Your task to perform on an android device: delete location history Image 0: 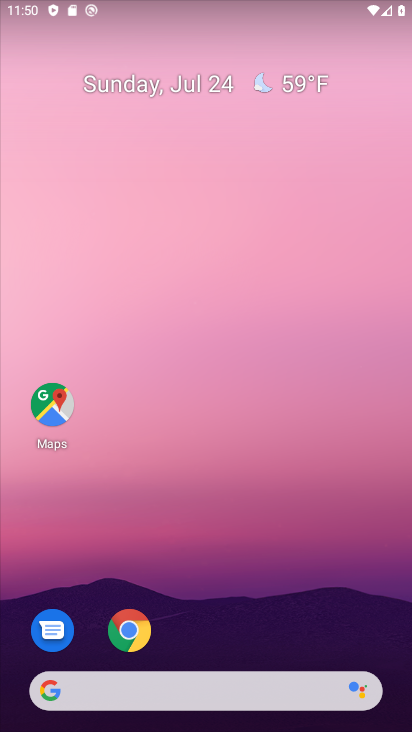
Step 0: drag from (253, 498) to (294, 236)
Your task to perform on an android device: delete location history Image 1: 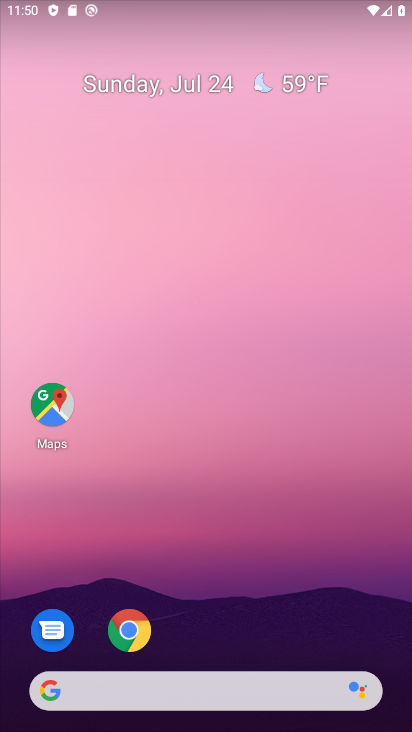
Step 1: drag from (218, 664) to (290, 161)
Your task to perform on an android device: delete location history Image 2: 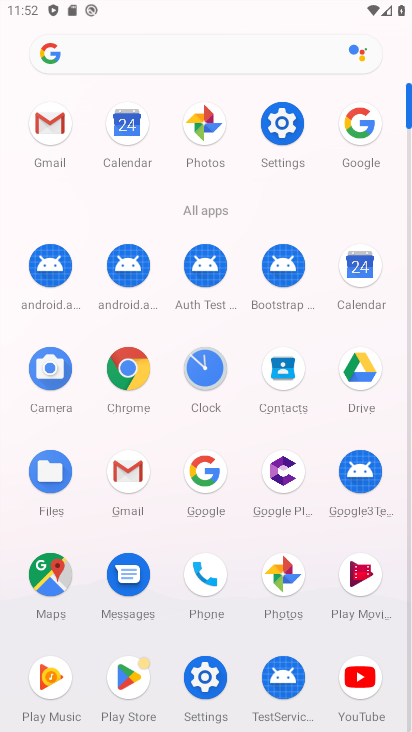
Step 2: click (207, 676)
Your task to perform on an android device: delete location history Image 3: 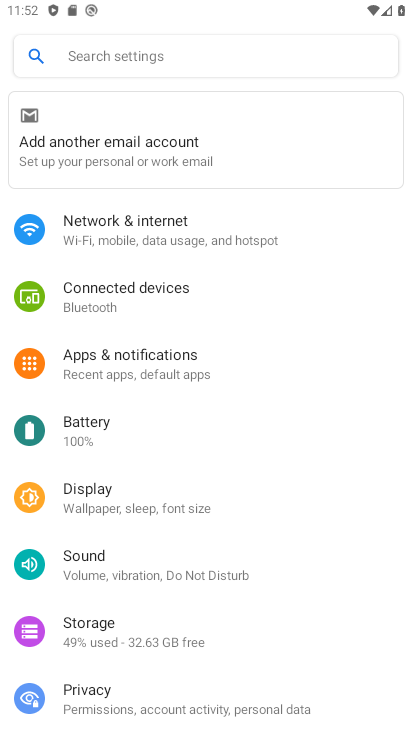
Step 3: drag from (96, 683) to (166, 349)
Your task to perform on an android device: delete location history Image 4: 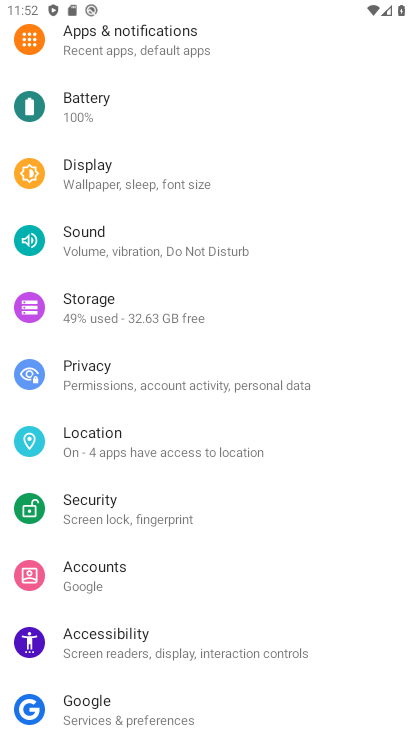
Step 4: click (102, 435)
Your task to perform on an android device: delete location history Image 5: 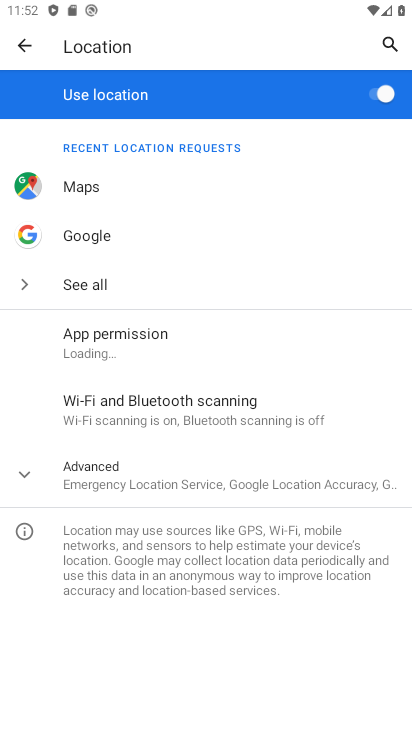
Step 5: click (122, 479)
Your task to perform on an android device: delete location history Image 6: 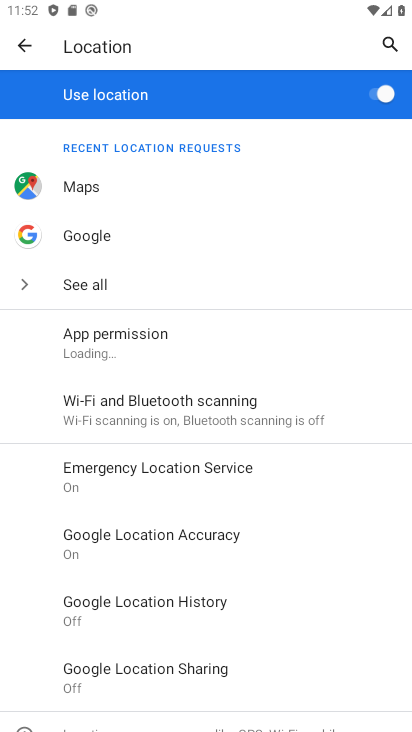
Step 6: click (170, 598)
Your task to perform on an android device: delete location history Image 7: 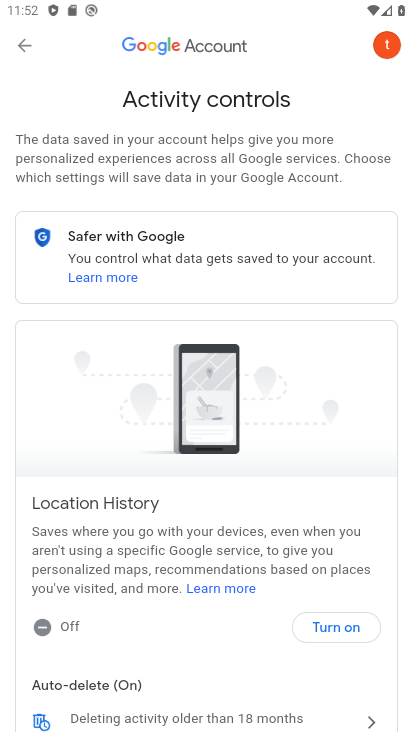
Step 7: drag from (230, 581) to (231, 253)
Your task to perform on an android device: delete location history Image 8: 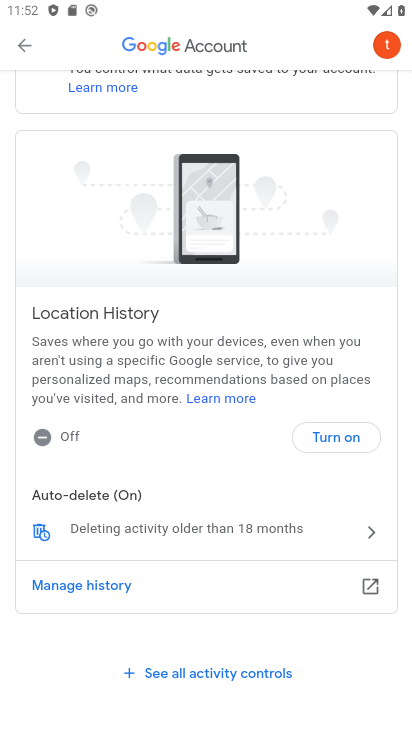
Step 8: click (124, 525)
Your task to perform on an android device: delete location history Image 9: 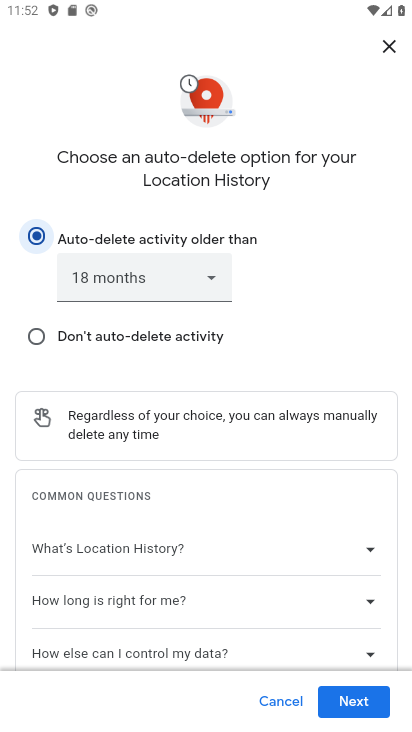
Step 9: click (353, 700)
Your task to perform on an android device: delete location history Image 10: 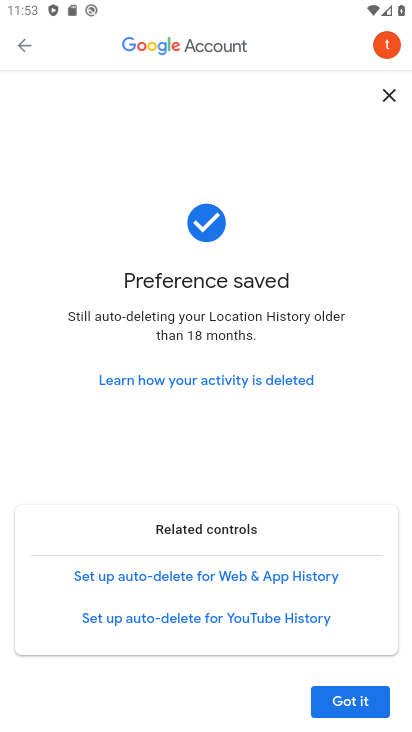
Step 10: click (353, 703)
Your task to perform on an android device: delete location history Image 11: 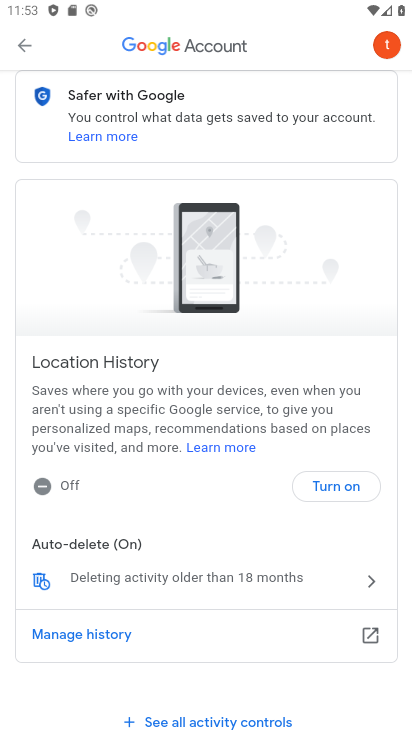
Step 11: task complete